Your task to perform on an android device: Do I have any events tomorrow? Image 0: 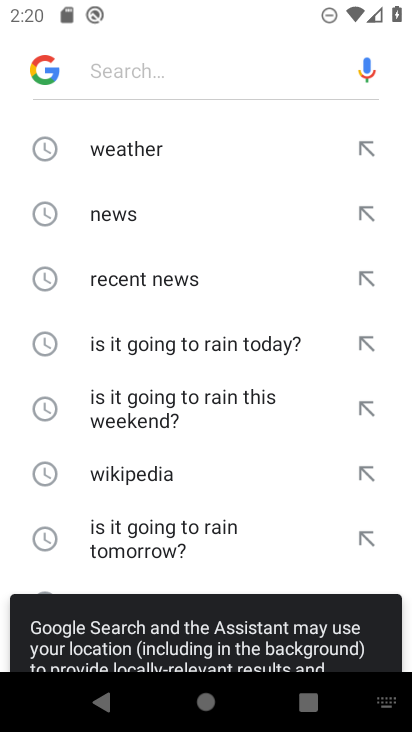
Step 0: press home button
Your task to perform on an android device: Do I have any events tomorrow? Image 1: 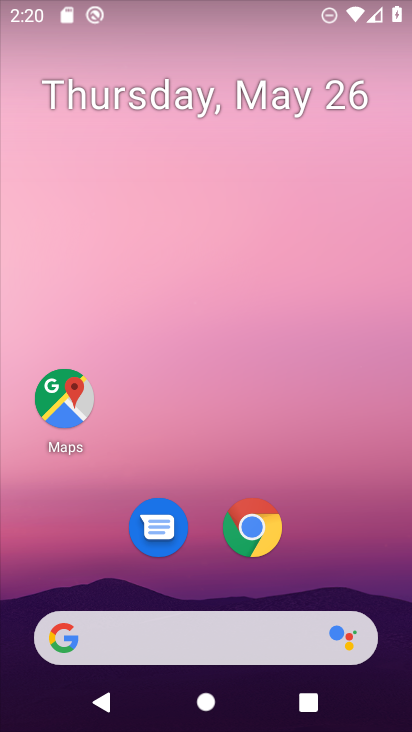
Step 1: drag from (182, 549) to (252, 70)
Your task to perform on an android device: Do I have any events tomorrow? Image 2: 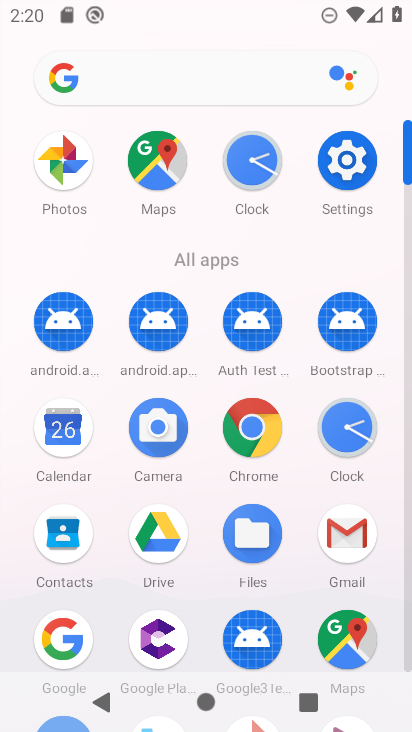
Step 2: click (69, 432)
Your task to perform on an android device: Do I have any events tomorrow? Image 3: 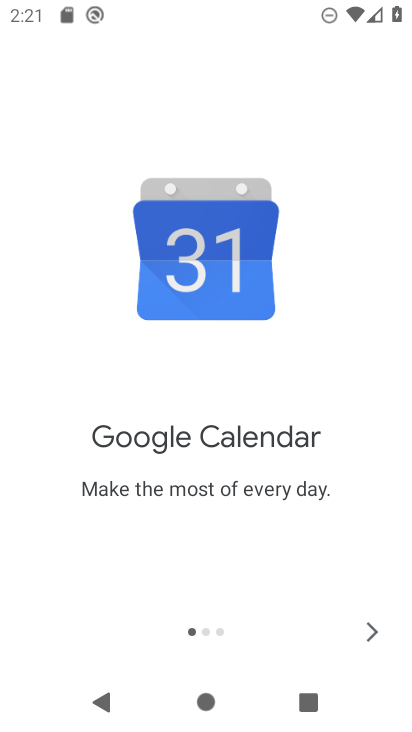
Step 3: click (366, 615)
Your task to perform on an android device: Do I have any events tomorrow? Image 4: 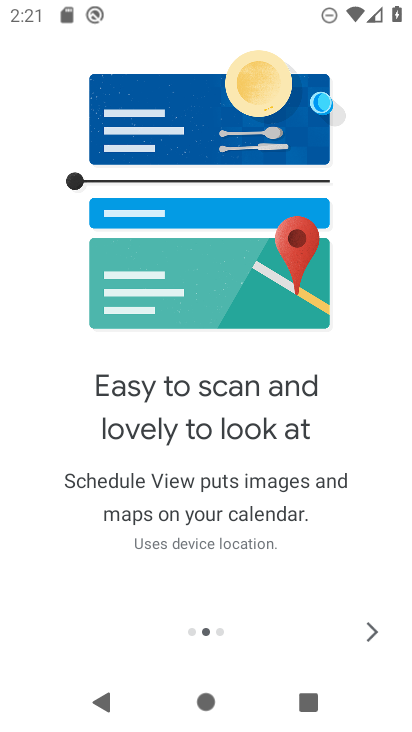
Step 4: click (389, 620)
Your task to perform on an android device: Do I have any events tomorrow? Image 5: 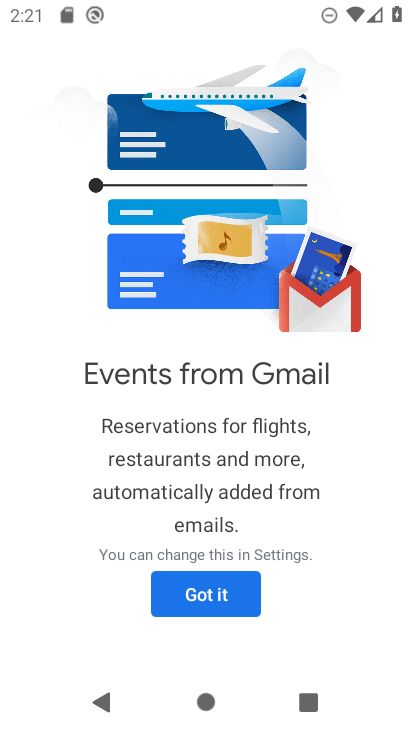
Step 5: click (223, 586)
Your task to perform on an android device: Do I have any events tomorrow? Image 6: 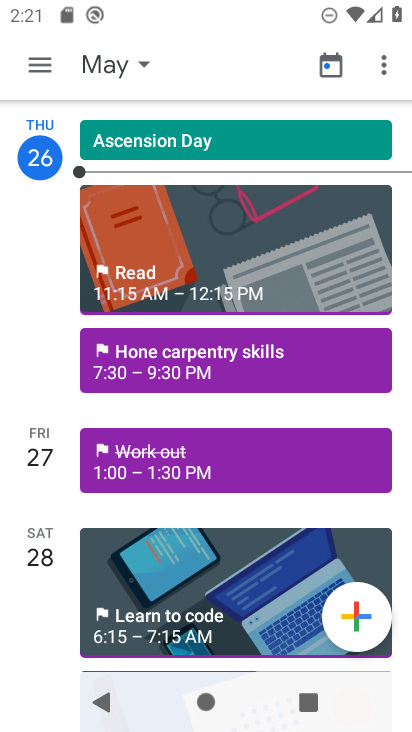
Step 6: click (147, 456)
Your task to perform on an android device: Do I have any events tomorrow? Image 7: 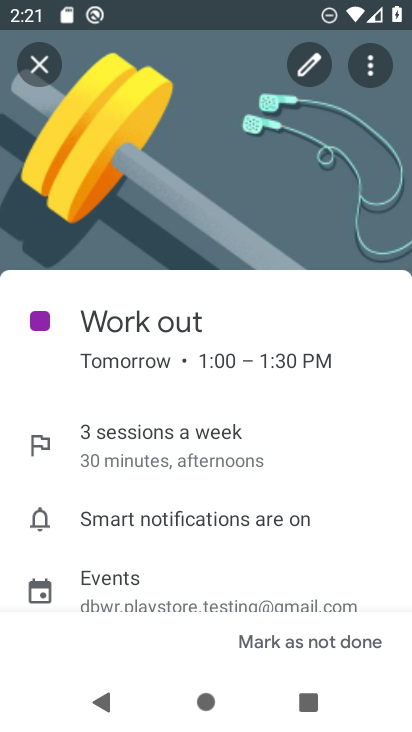
Step 7: task complete